Your task to perform on an android device: Go to location settings Image 0: 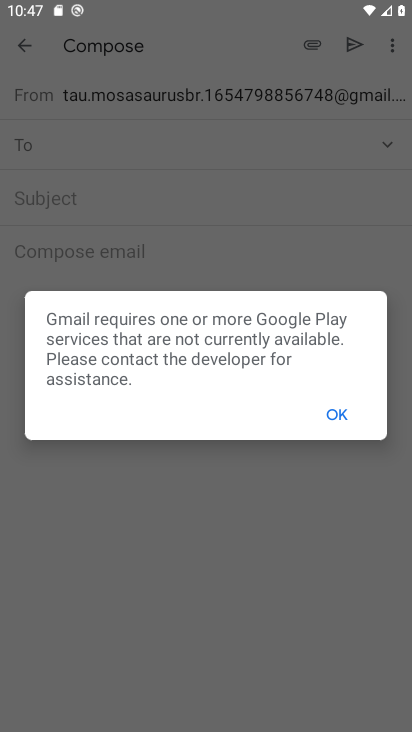
Step 0: click (331, 405)
Your task to perform on an android device: Go to location settings Image 1: 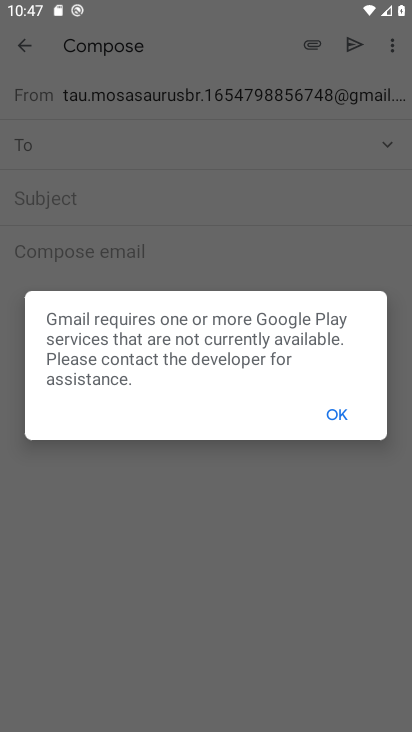
Step 1: click (330, 405)
Your task to perform on an android device: Go to location settings Image 2: 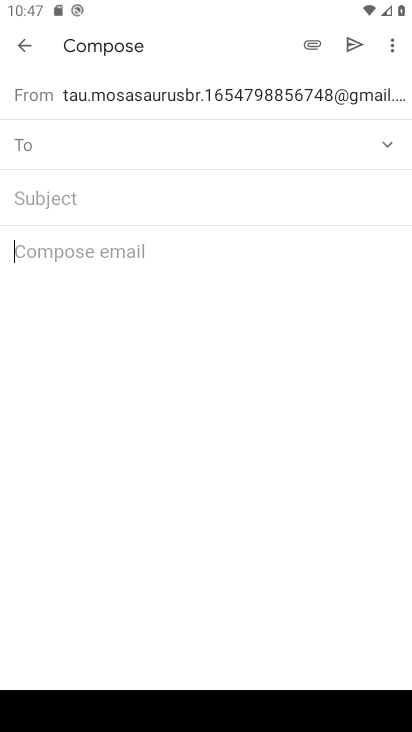
Step 2: click (10, 30)
Your task to perform on an android device: Go to location settings Image 3: 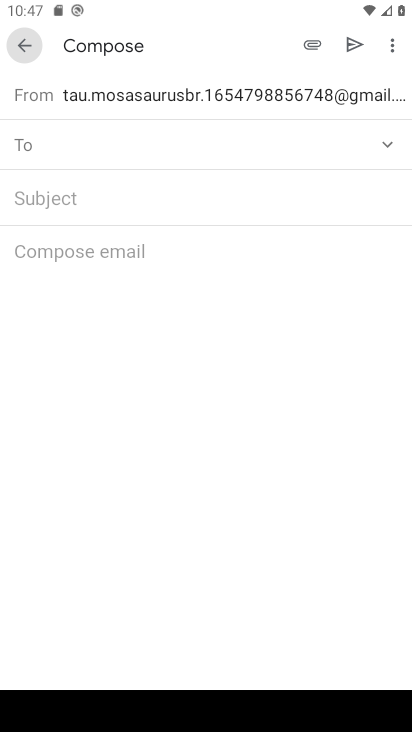
Step 3: click (25, 33)
Your task to perform on an android device: Go to location settings Image 4: 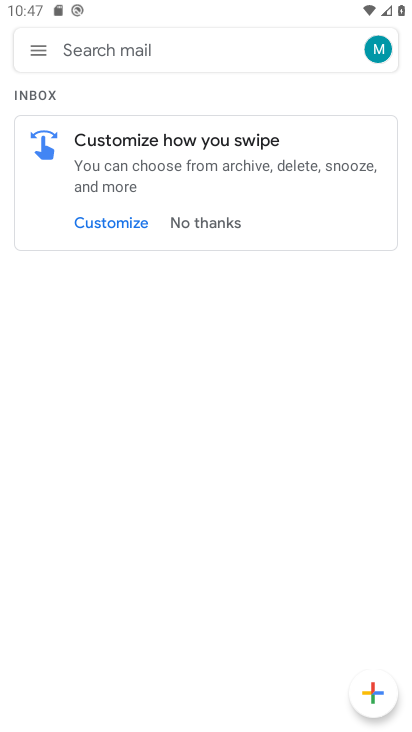
Step 4: press back button
Your task to perform on an android device: Go to location settings Image 5: 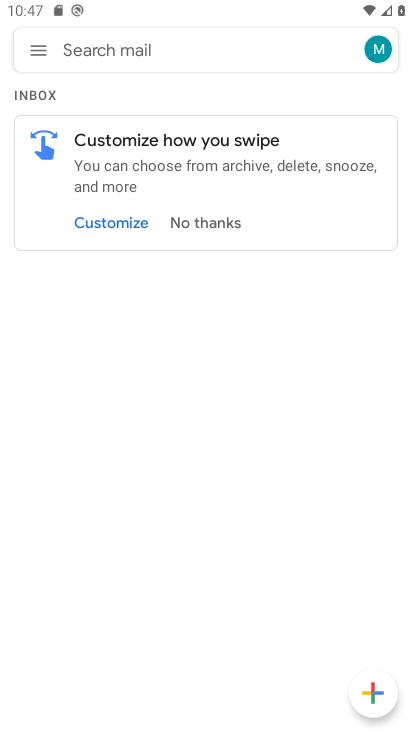
Step 5: press back button
Your task to perform on an android device: Go to location settings Image 6: 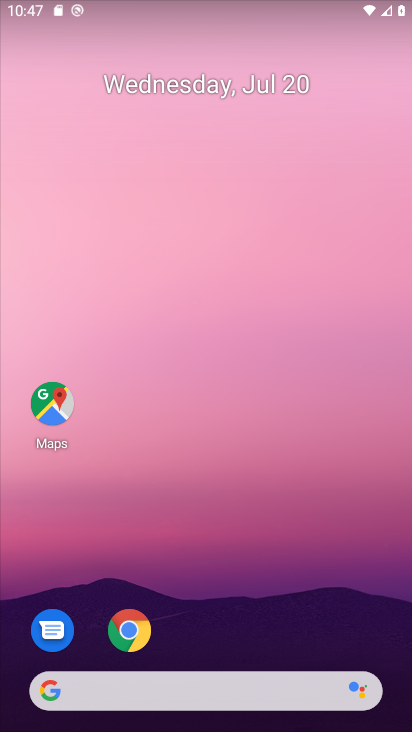
Step 6: drag from (195, 388) to (192, 155)
Your task to perform on an android device: Go to location settings Image 7: 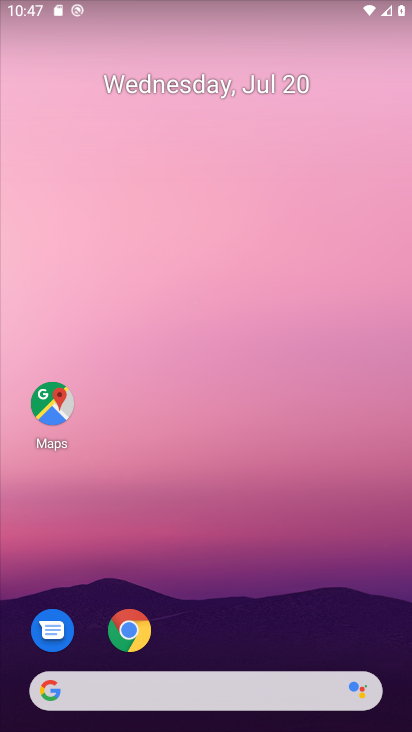
Step 7: drag from (227, 552) to (212, 80)
Your task to perform on an android device: Go to location settings Image 8: 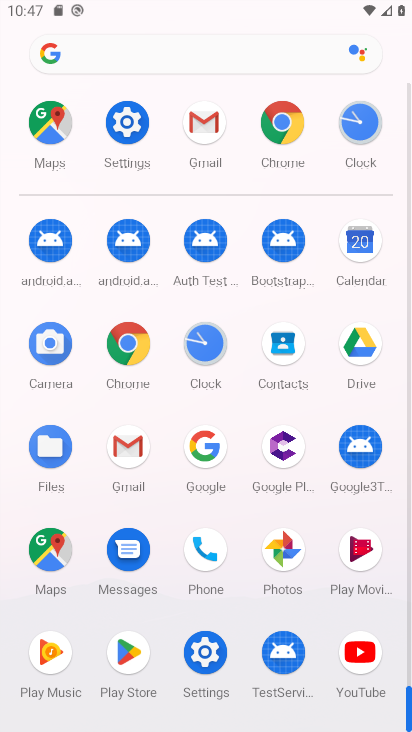
Step 8: click (204, 657)
Your task to perform on an android device: Go to location settings Image 9: 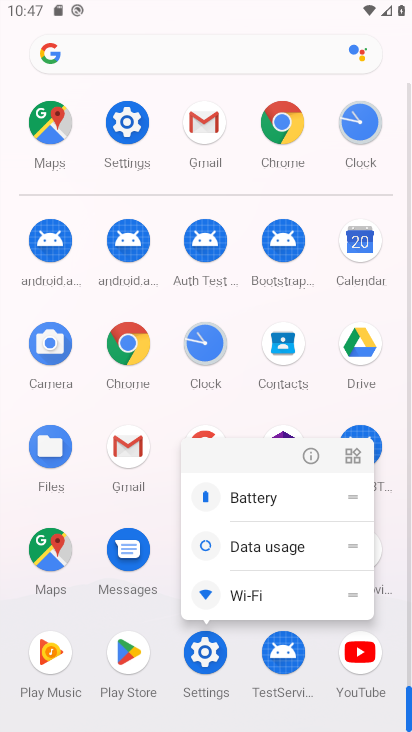
Step 9: click (204, 657)
Your task to perform on an android device: Go to location settings Image 10: 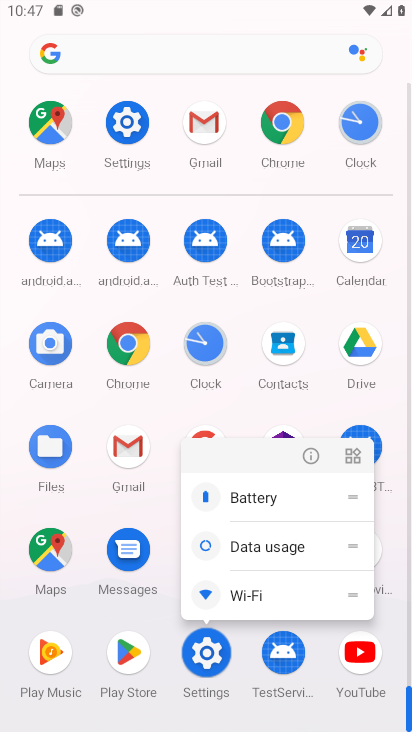
Step 10: click (204, 657)
Your task to perform on an android device: Go to location settings Image 11: 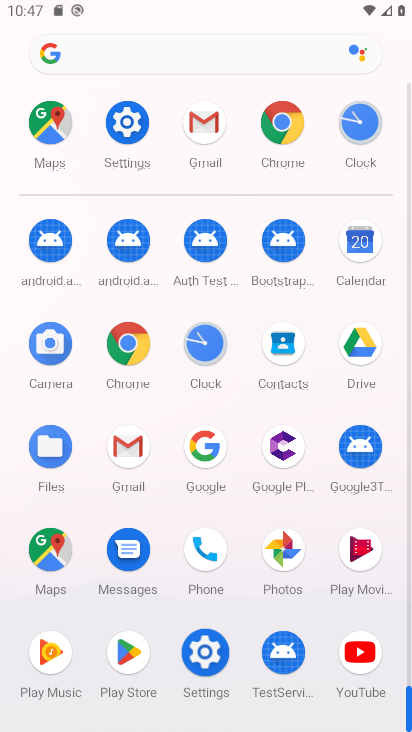
Step 11: click (204, 657)
Your task to perform on an android device: Go to location settings Image 12: 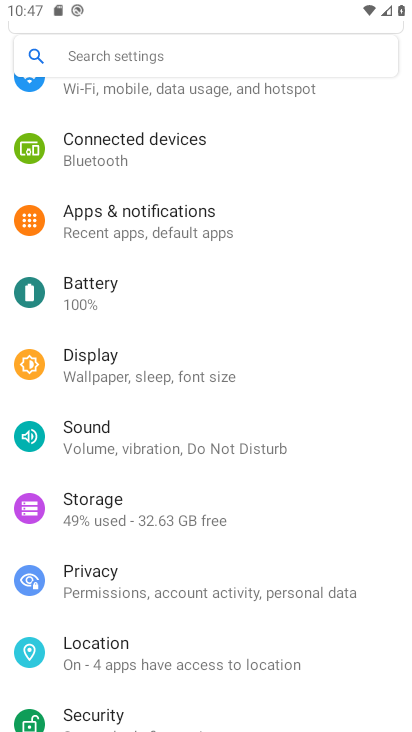
Step 12: click (149, 217)
Your task to perform on an android device: Go to location settings Image 13: 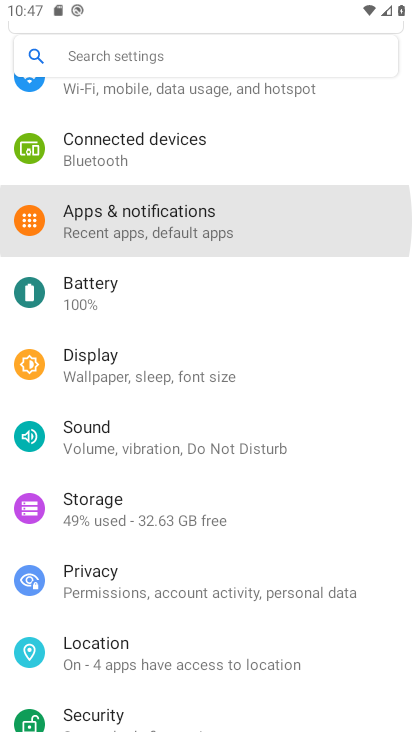
Step 13: click (148, 217)
Your task to perform on an android device: Go to location settings Image 14: 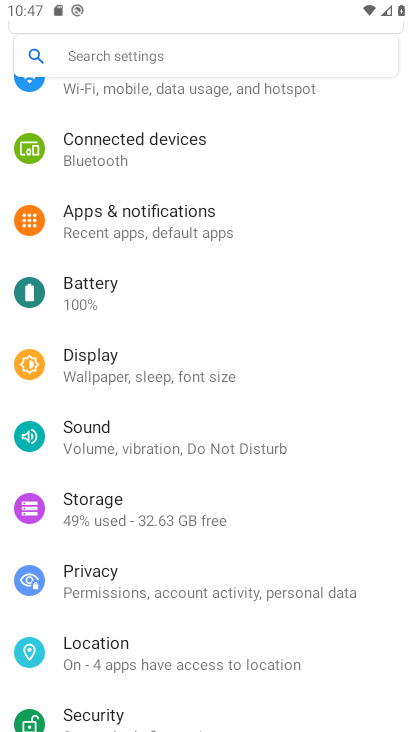
Step 14: click (149, 217)
Your task to perform on an android device: Go to location settings Image 15: 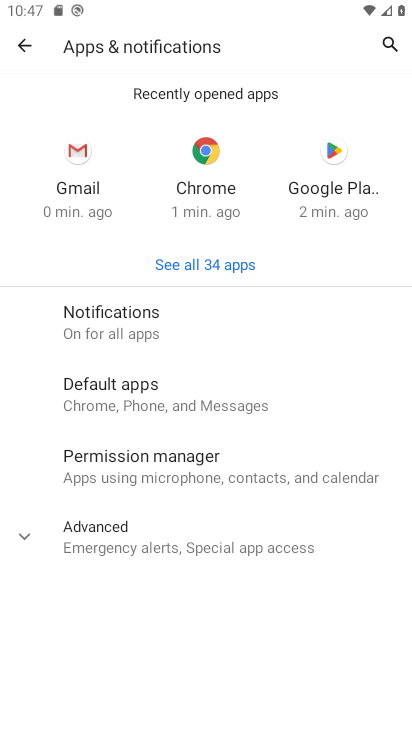
Step 15: click (106, 323)
Your task to perform on an android device: Go to location settings Image 16: 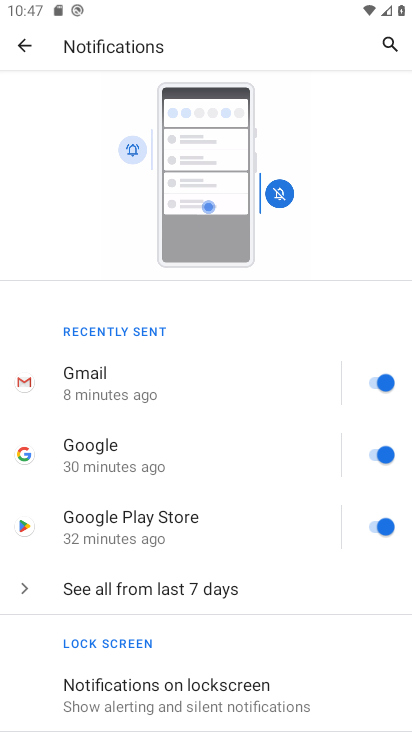
Step 16: drag from (146, 586) to (92, 203)
Your task to perform on an android device: Go to location settings Image 17: 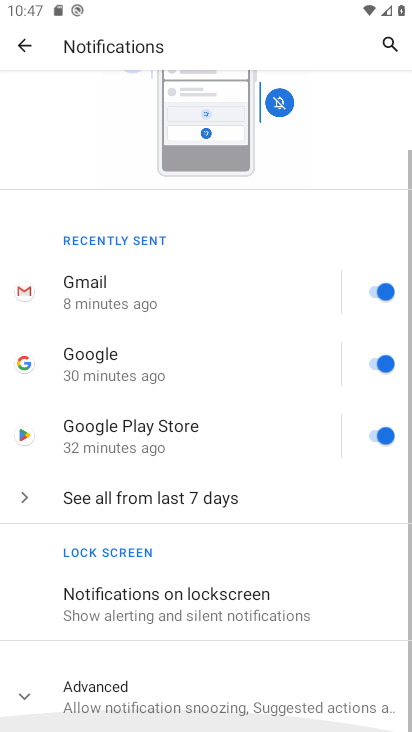
Step 17: drag from (160, 512) to (170, 269)
Your task to perform on an android device: Go to location settings Image 18: 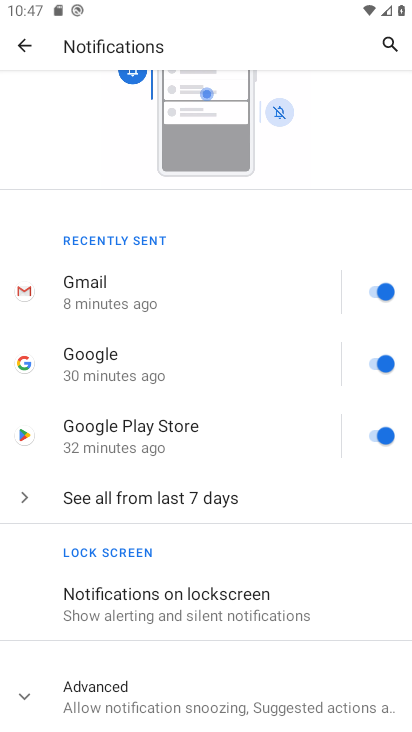
Step 18: click (124, 703)
Your task to perform on an android device: Go to location settings Image 19: 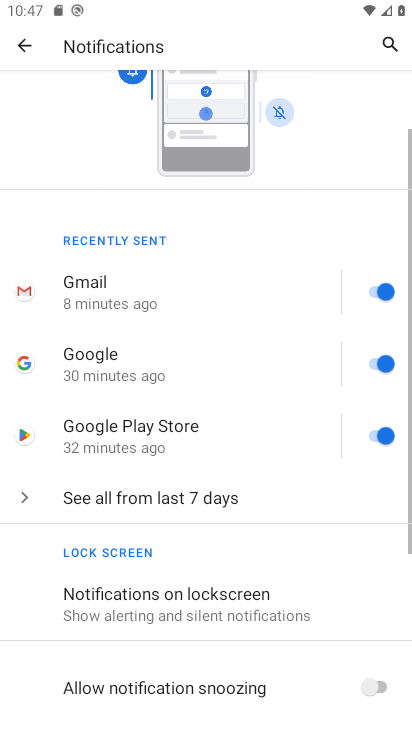
Step 19: drag from (167, 532) to (25, 52)
Your task to perform on an android device: Go to location settings Image 20: 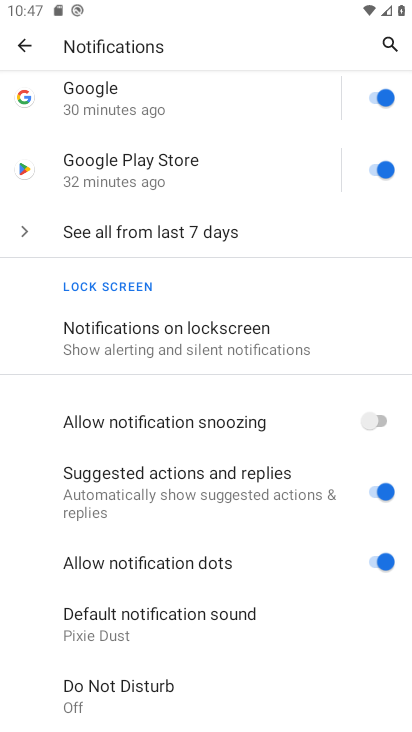
Step 20: click (19, 39)
Your task to perform on an android device: Go to location settings Image 21: 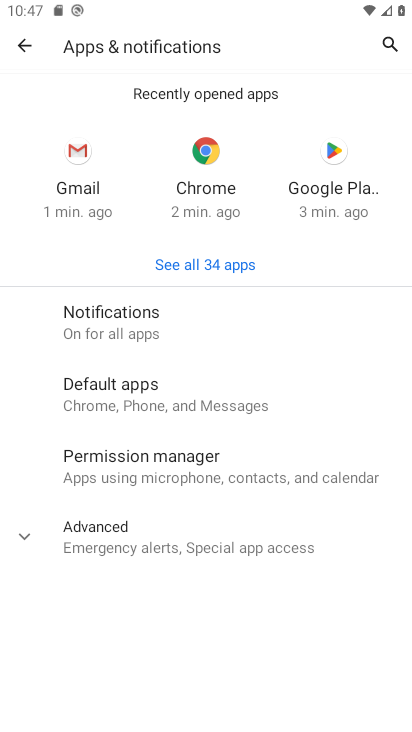
Step 21: click (16, 39)
Your task to perform on an android device: Go to location settings Image 22: 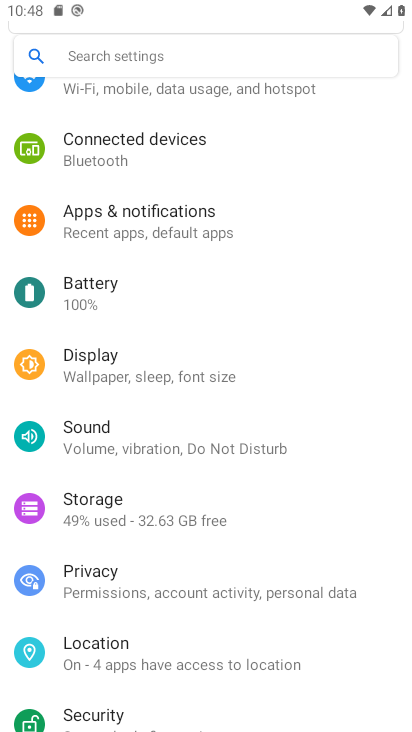
Step 22: click (111, 653)
Your task to perform on an android device: Go to location settings Image 23: 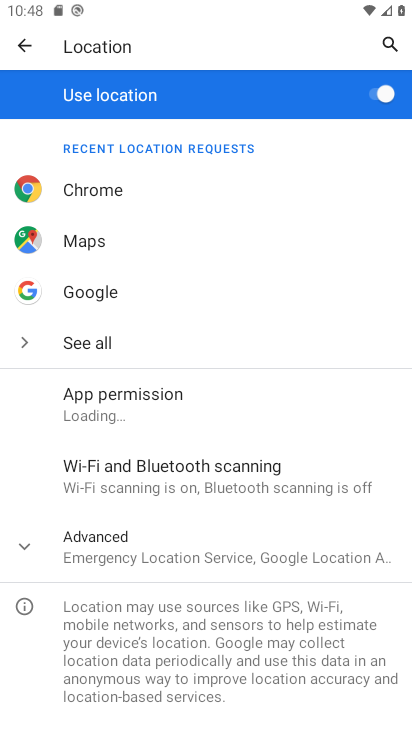
Step 23: click (126, 548)
Your task to perform on an android device: Go to location settings Image 24: 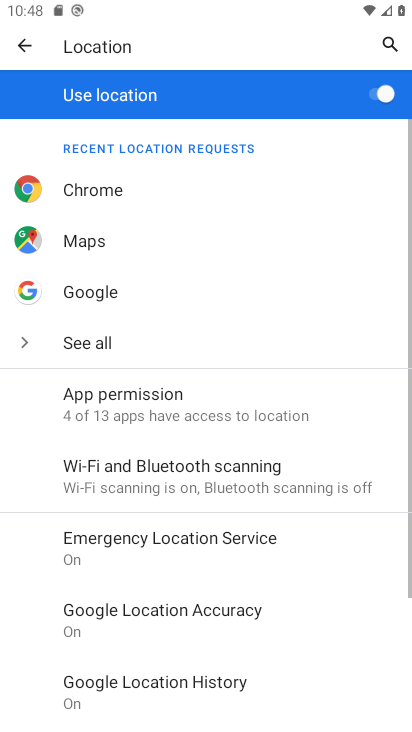
Step 24: task complete